Your task to perform on an android device: Open internet settings Image 0: 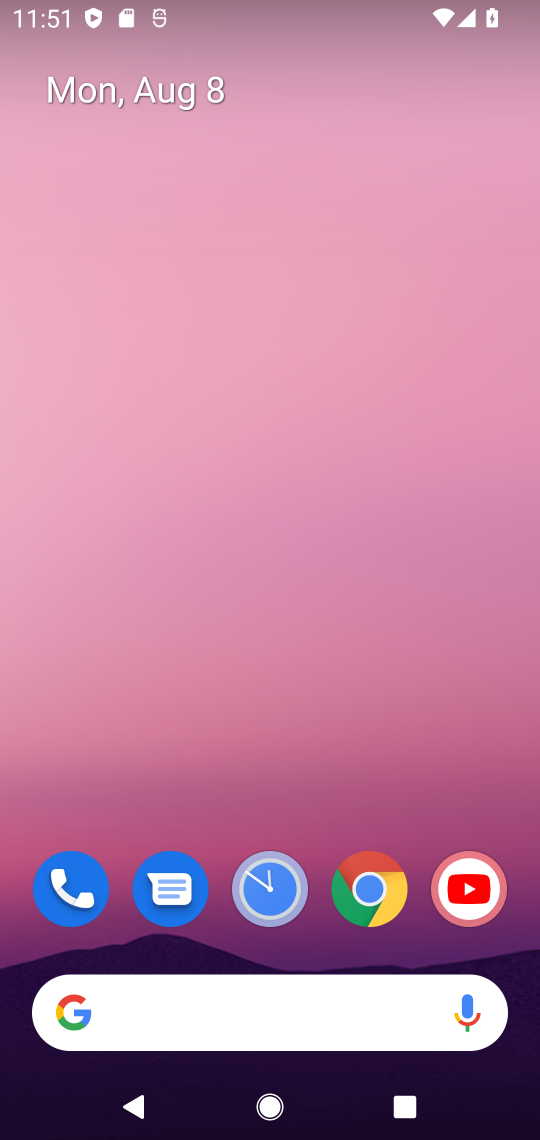
Step 0: drag from (410, 823) to (222, 216)
Your task to perform on an android device: Open internet settings Image 1: 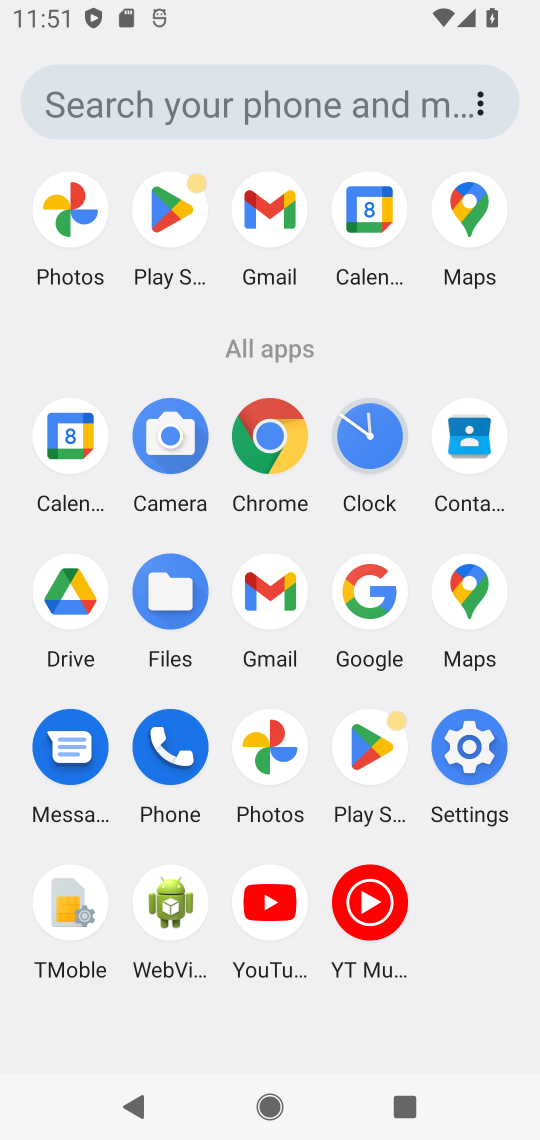
Step 1: click (494, 748)
Your task to perform on an android device: Open internet settings Image 2: 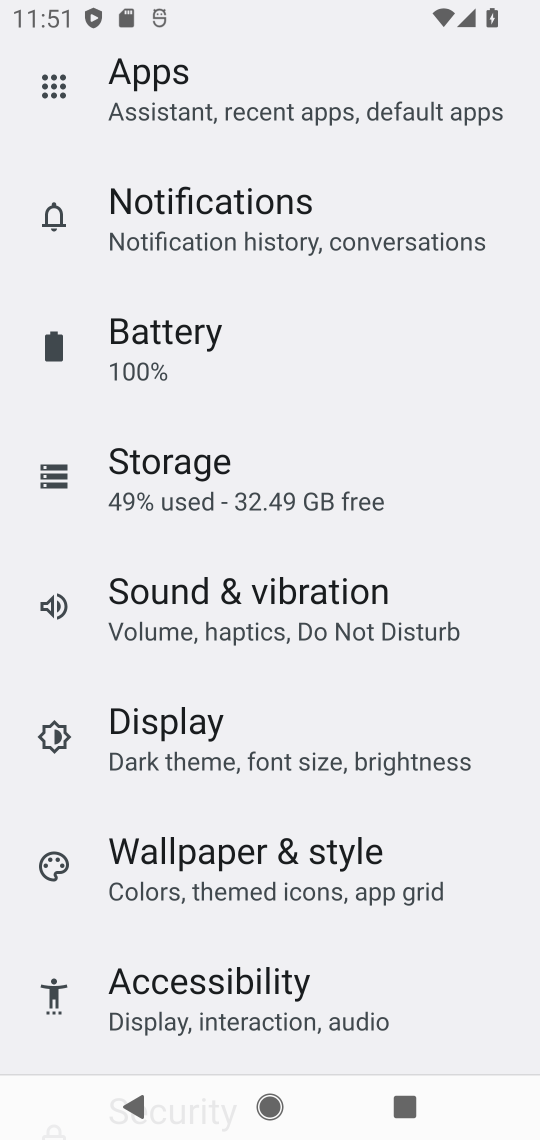
Step 2: drag from (260, 254) to (289, 622)
Your task to perform on an android device: Open internet settings Image 3: 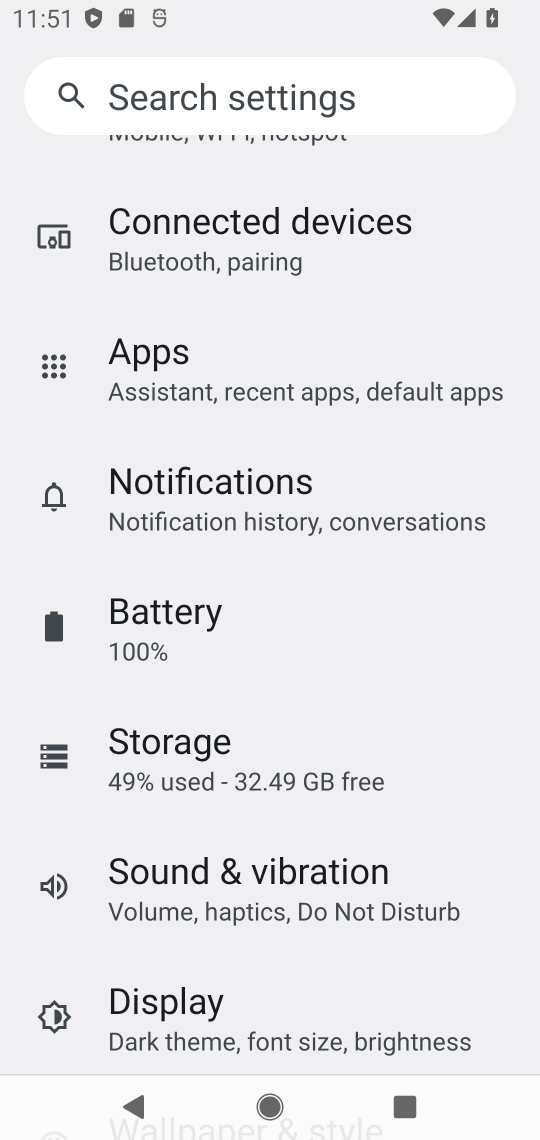
Step 3: drag from (221, 187) to (224, 590)
Your task to perform on an android device: Open internet settings Image 4: 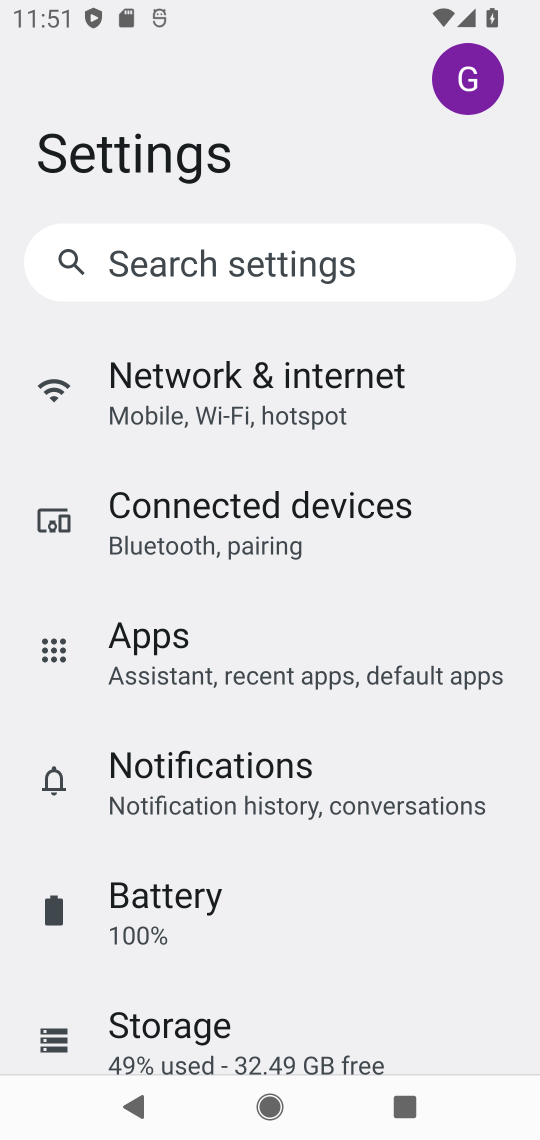
Step 4: click (166, 377)
Your task to perform on an android device: Open internet settings Image 5: 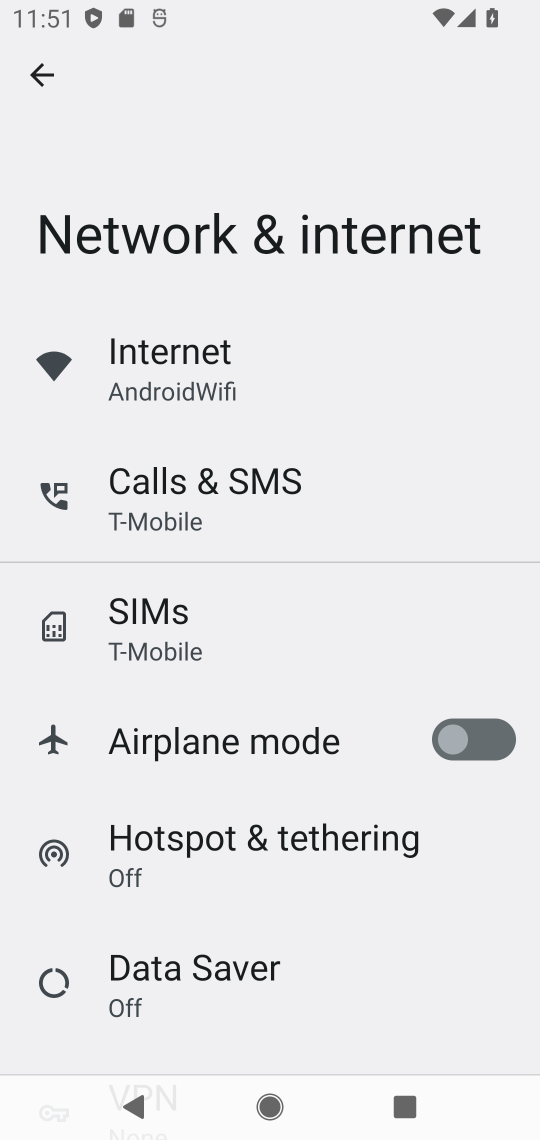
Step 5: click (286, 381)
Your task to perform on an android device: Open internet settings Image 6: 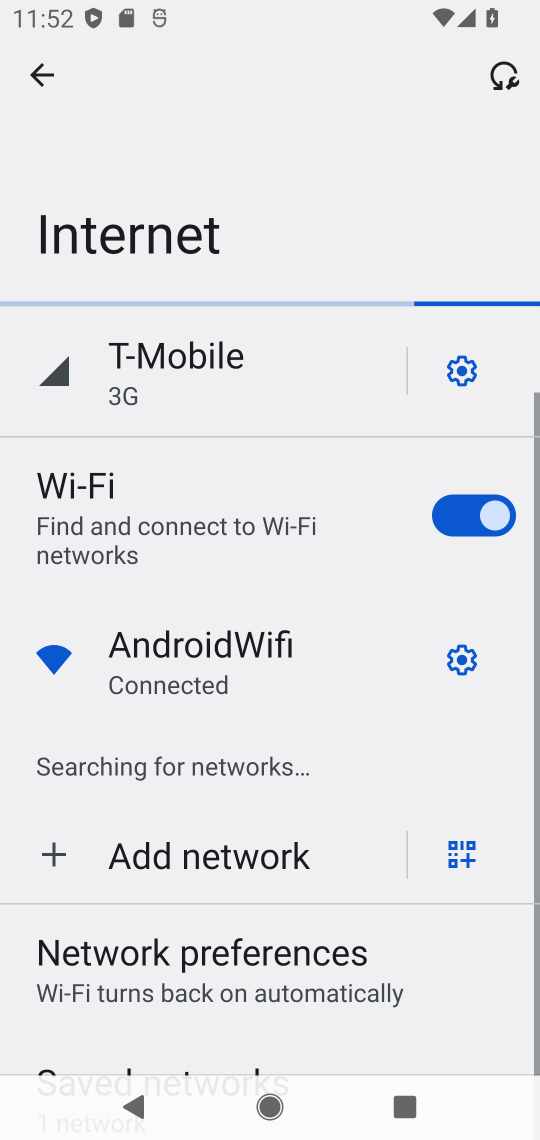
Step 6: task complete